Your task to perform on an android device: open a bookmark in the chrome app Image 0: 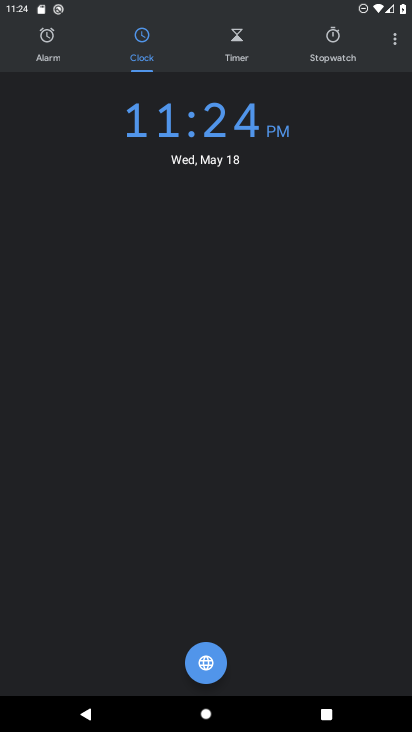
Step 0: press back button
Your task to perform on an android device: open a bookmark in the chrome app Image 1: 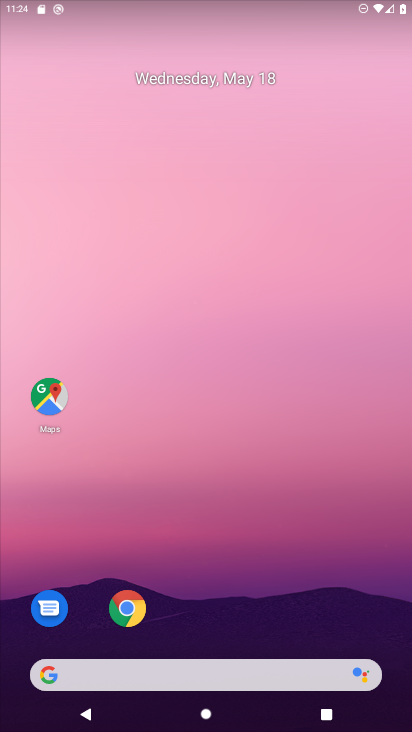
Step 1: click (127, 609)
Your task to perform on an android device: open a bookmark in the chrome app Image 2: 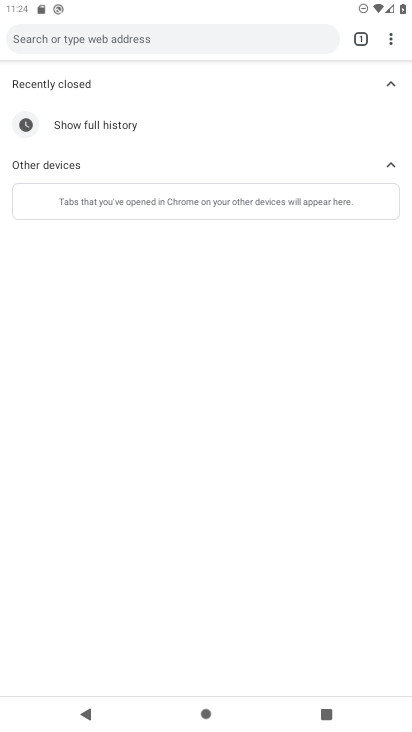
Step 2: click (391, 37)
Your task to perform on an android device: open a bookmark in the chrome app Image 3: 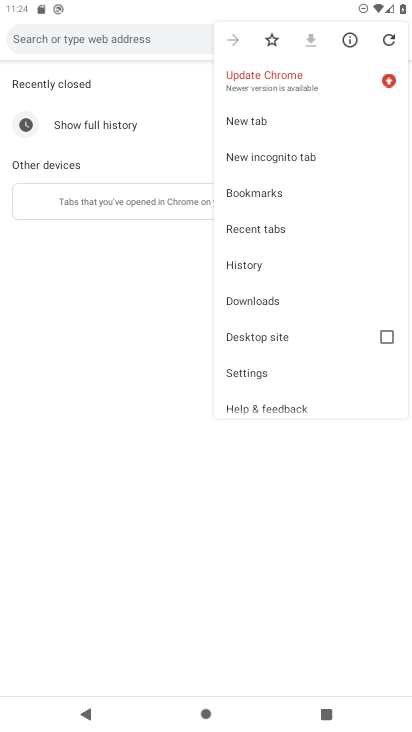
Step 3: click (264, 192)
Your task to perform on an android device: open a bookmark in the chrome app Image 4: 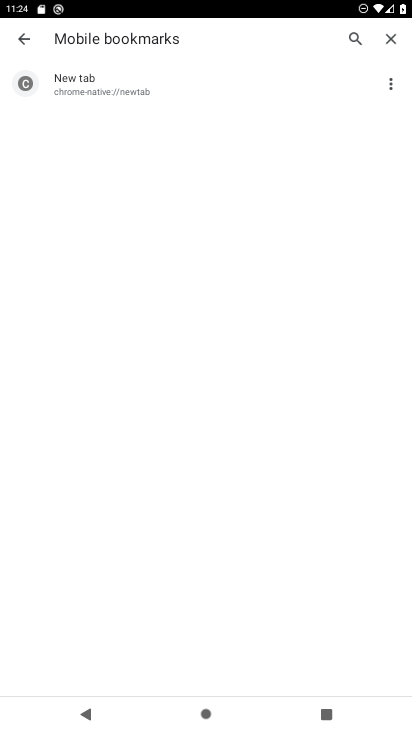
Step 4: task complete